Your task to perform on an android device: Open Google Chrome Image 0: 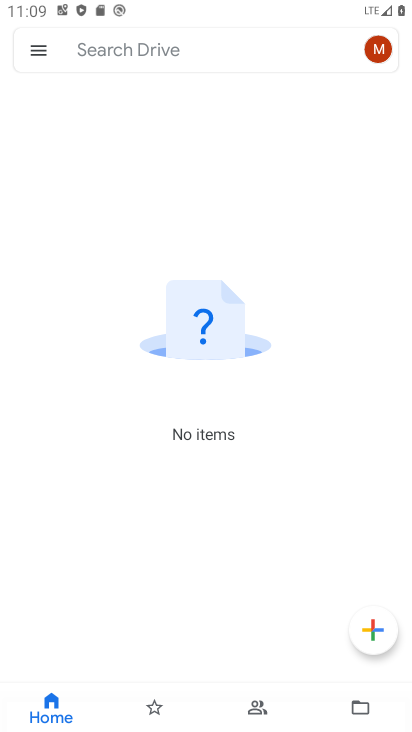
Step 0: press home button
Your task to perform on an android device: Open Google Chrome Image 1: 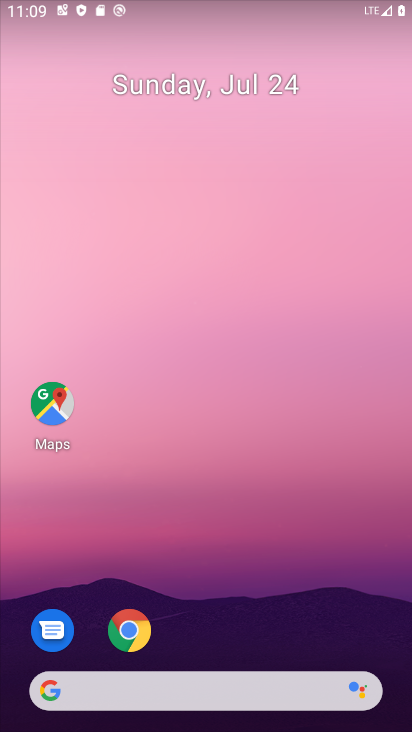
Step 1: click (112, 644)
Your task to perform on an android device: Open Google Chrome Image 2: 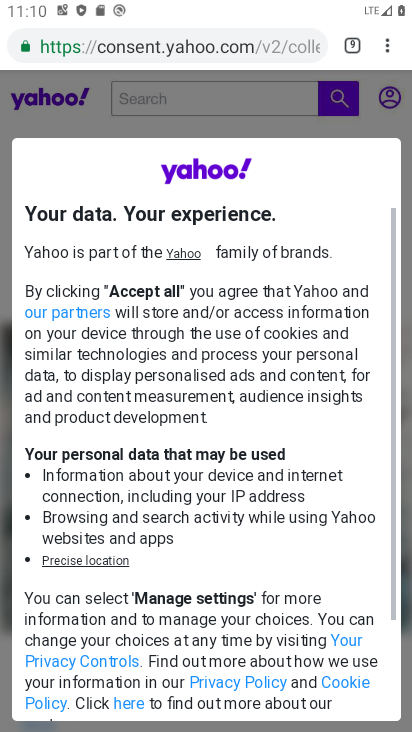
Step 2: task complete